Your task to perform on an android device: Go to wifi settings Image 0: 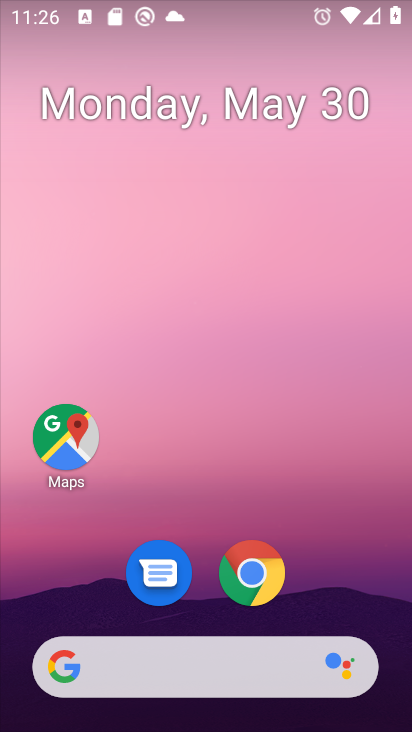
Step 0: drag from (191, 676) to (204, 16)
Your task to perform on an android device: Go to wifi settings Image 1: 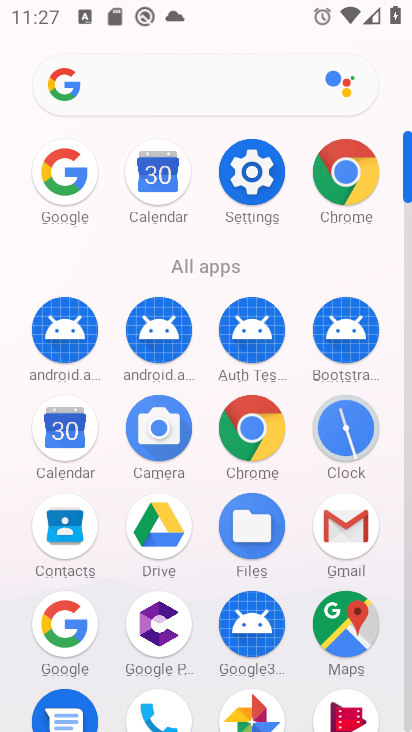
Step 1: click (253, 173)
Your task to perform on an android device: Go to wifi settings Image 2: 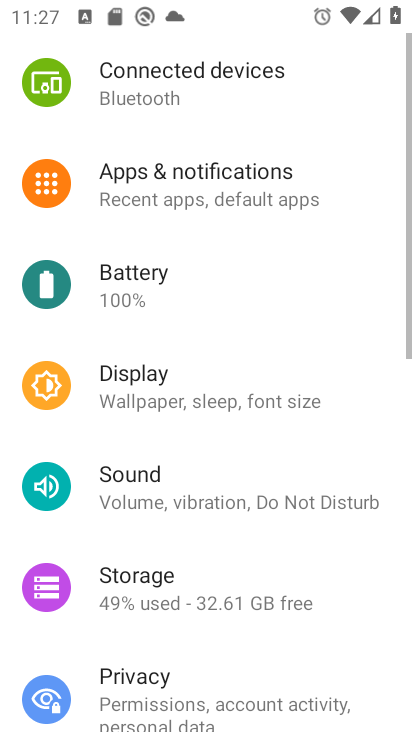
Step 2: drag from (245, 219) to (208, 631)
Your task to perform on an android device: Go to wifi settings Image 3: 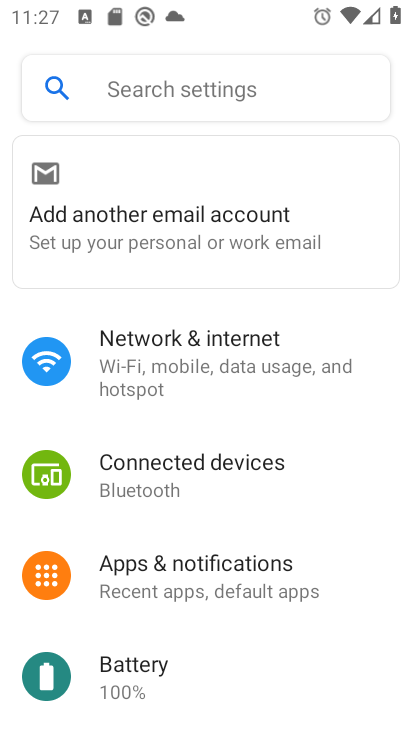
Step 3: click (220, 361)
Your task to perform on an android device: Go to wifi settings Image 4: 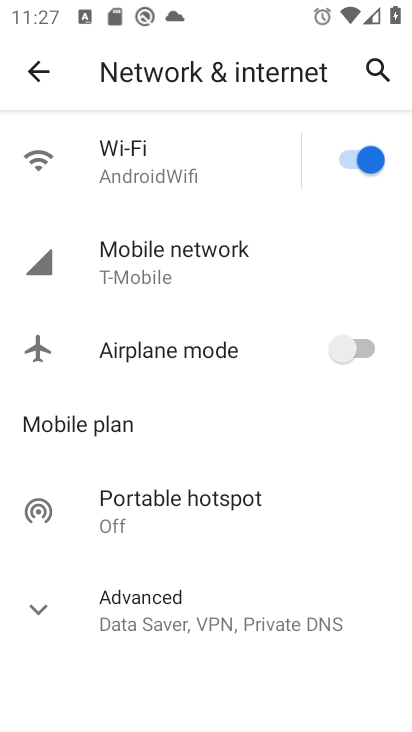
Step 4: click (161, 170)
Your task to perform on an android device: Go to wifi settings Image 5: 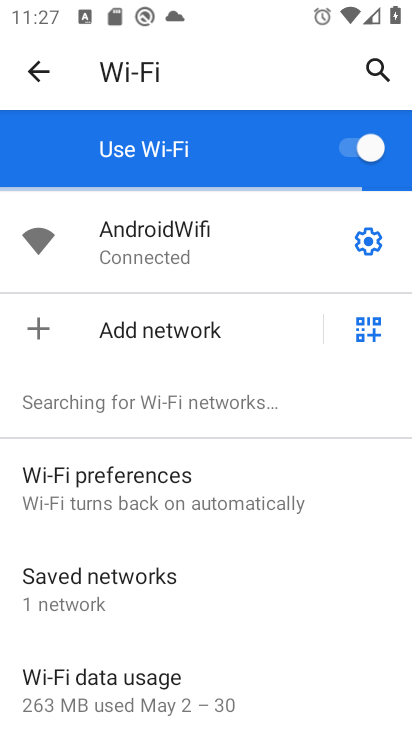
Step 5: task complete